Your task to perform on an android device: Open Amazon Image 0: 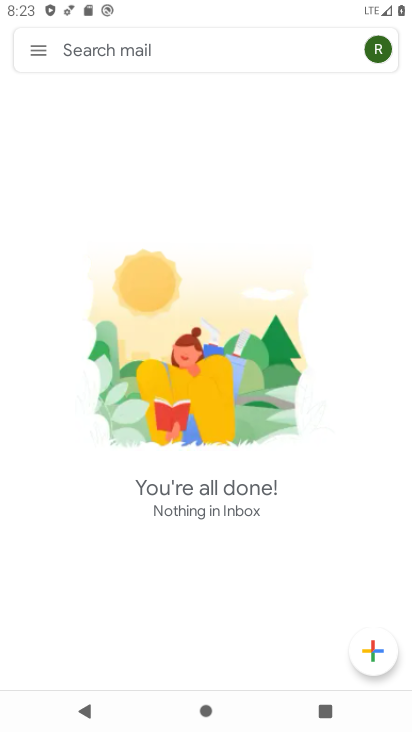
Step 0: press home button
Your task to perform on an android device: Open Amazon Image 1: 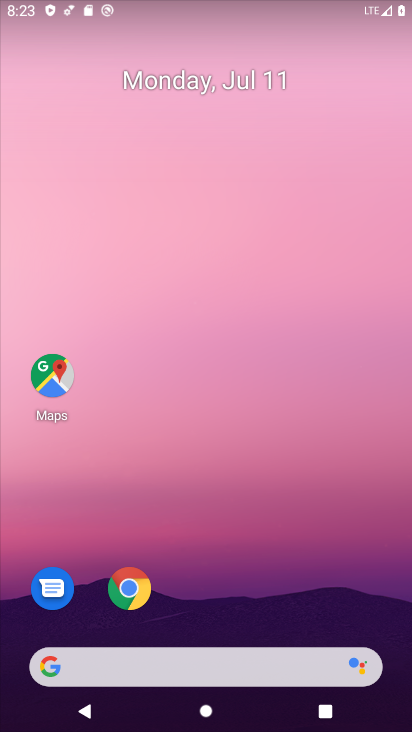
Step 1: click (132, 591)
Your task to perform on an android device: Open Amazon Image 2: 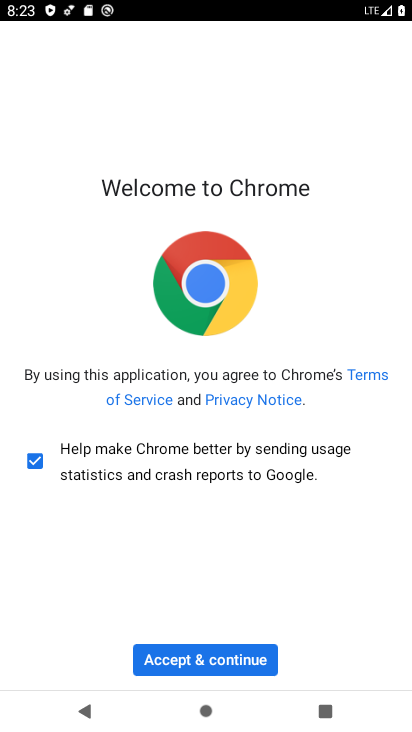
Step 2: click (200, 653)
Your task to perform on an android device: Open Amazon Image 3: 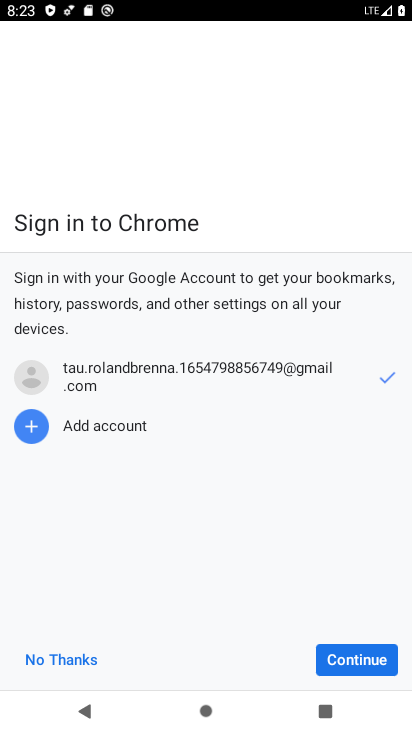
Step 3: click (324, 654)
Your task to perform on an android device: Open Amazon Image 4: 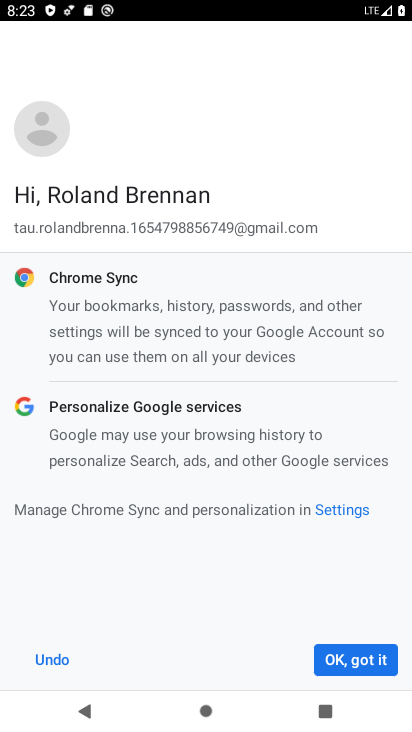
Step 4: click (341, 655)
Your task to perform on an android device: Open Amazon Image 5: 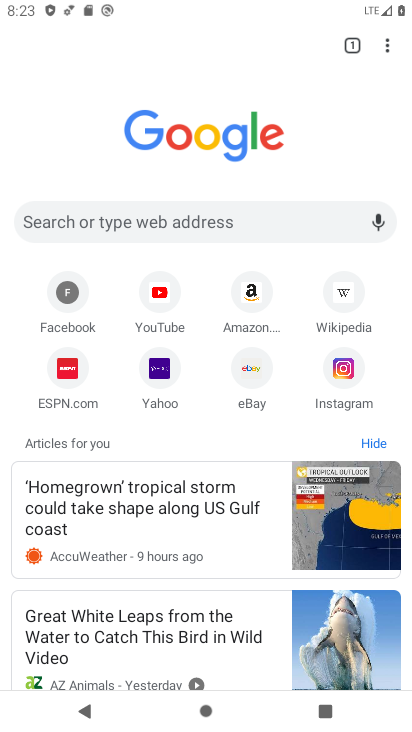
Step 5: click (260, 288)
Your task to perform on an android device: Open Amazon Image 6: 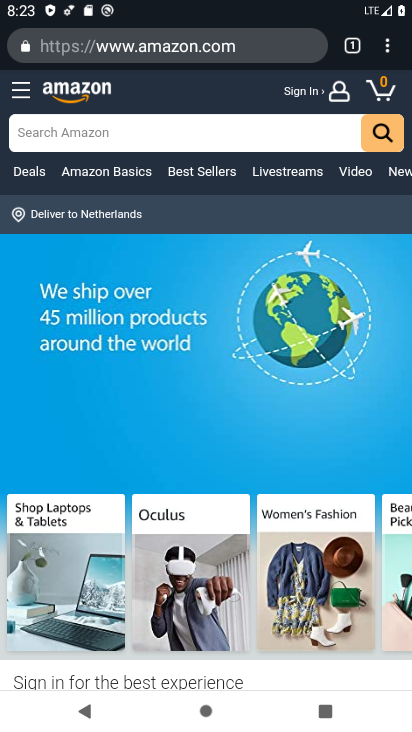
Step 6: task complete